Your task to perform on an android device: When is my next meeting? Image 0: 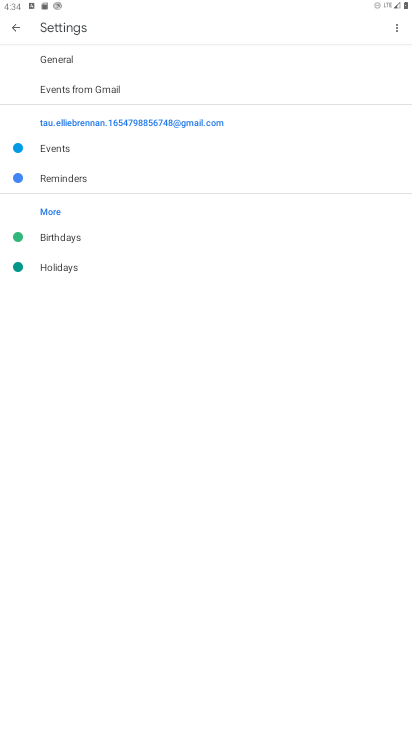
Step 0: press home button
Your task to perform on an android device: When is my next meeting? Image 1: 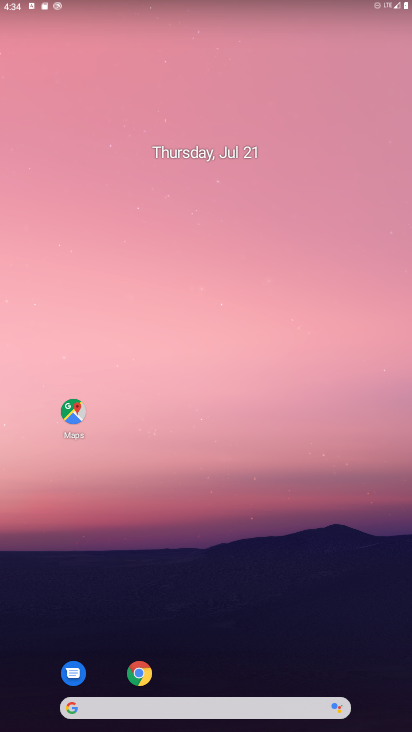
Step 1: drag from (377, 688) to (330, 256)
Your task to perform on an android device: When is my next meeting? Image 2: 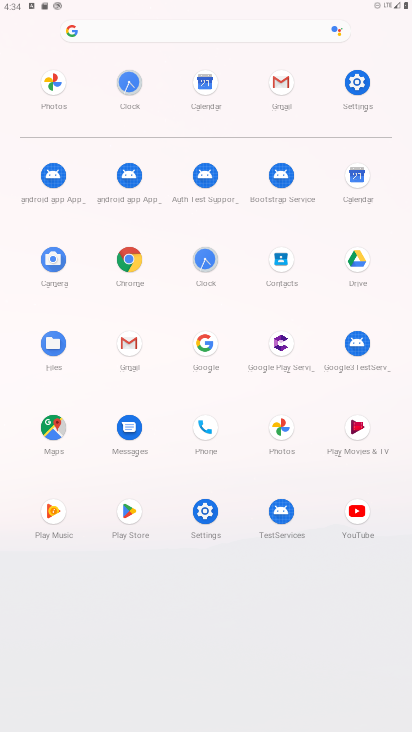
Step 2: click (357, 176)
Your task to perform on an android device: When is my next meeting? Image 3: 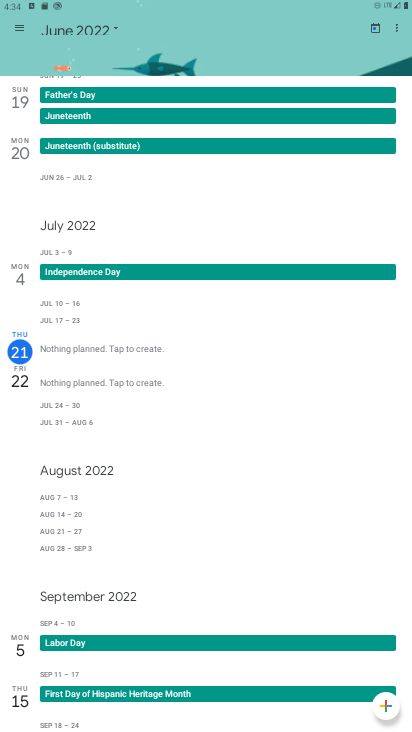
Step 3: drag from (135, 215) to (124, 491)
Your task to perform on an android device: When is my next meeting? Image 4: 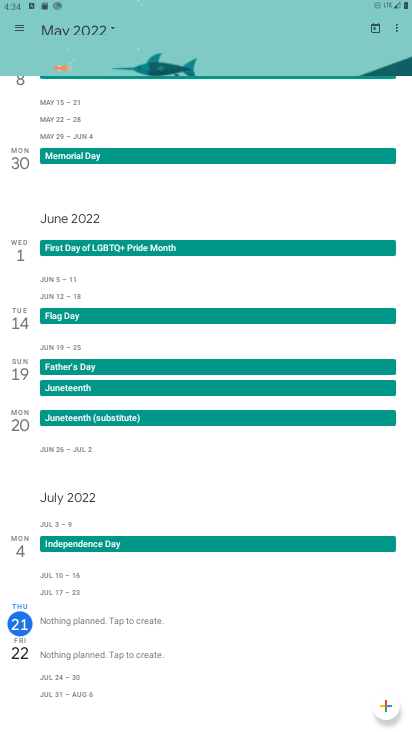
Step 4: click (17, 29)
Your task to perform on an android device: When is my next meeting? Image 5: 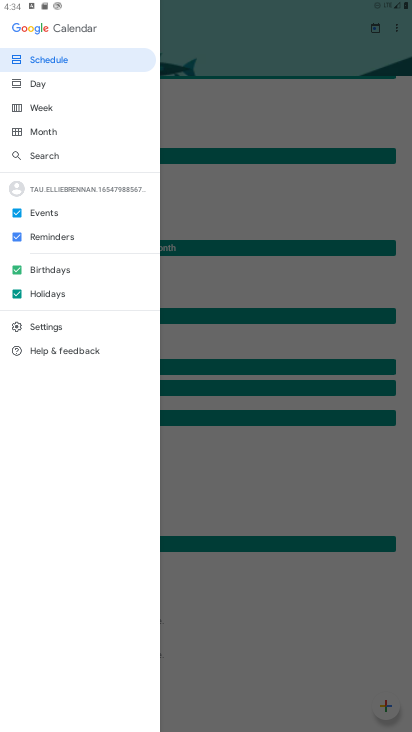
Step 5: click (58, 63)
Your task to perform on an android device: When is my next meeting? Image 6: 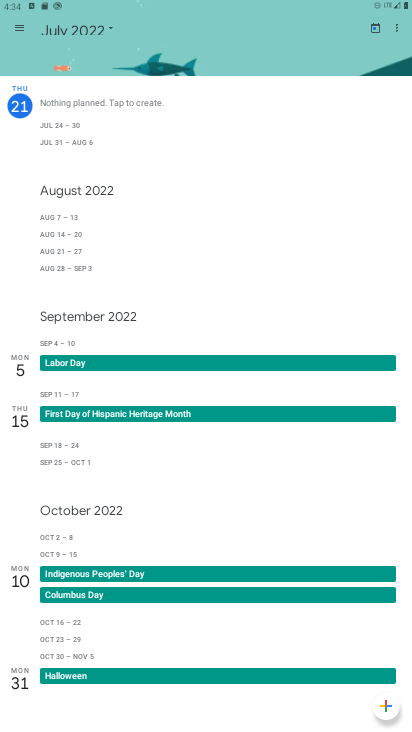
Step 6: task complete